Your task to perform on an android device: Open Android settings Image 0: 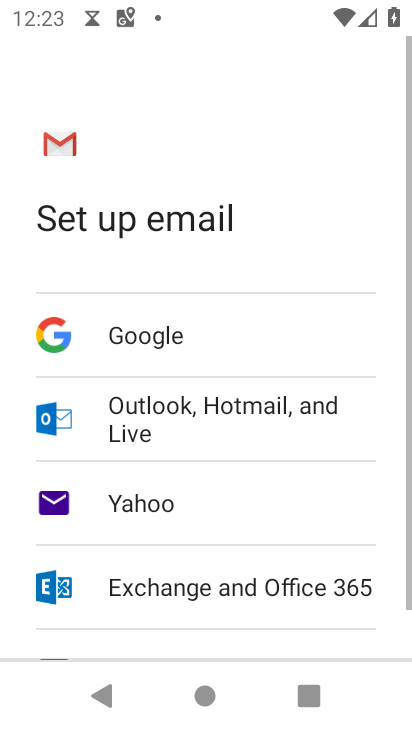
Step 0: press home button
Your task to perform on an android device: Open Android settings Image 1: 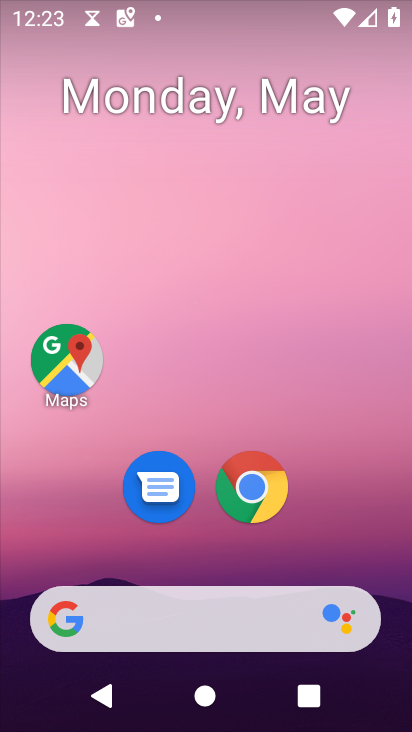
Step 1: drag from (222, 548) to (128, 3)
Your task to perform on an android device: Open Android settings Image 2: 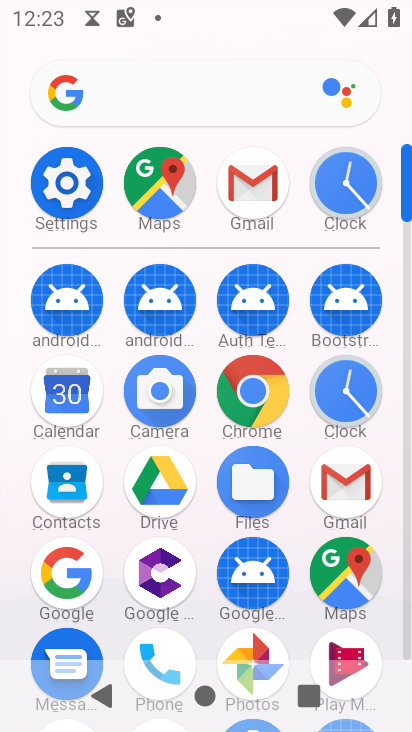
Step 2: click (68, 182)
Your task to perform on an android device: Open Android settings Image 3: 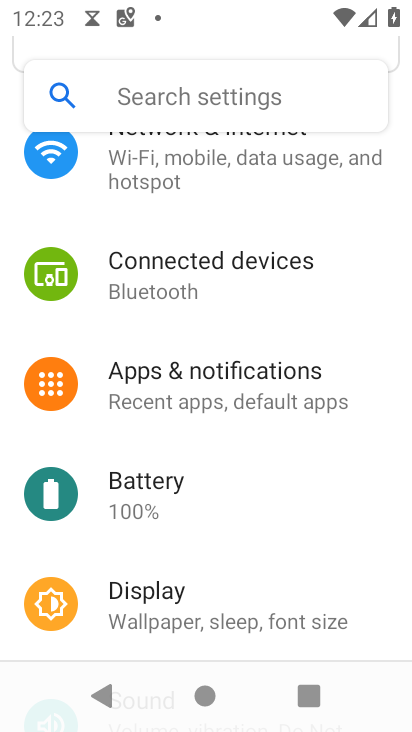
Step 3: drag from (207, 612) to (230, 61)
Your task to perform on an android device: Open Android settings Image 4: 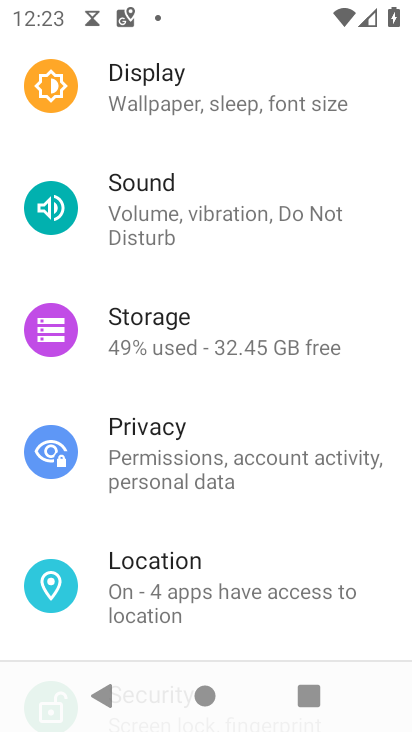
Step 4: drag from (237, 622) to (234, 100)
Your task to perform on an android device: Open Android settings Image 5: 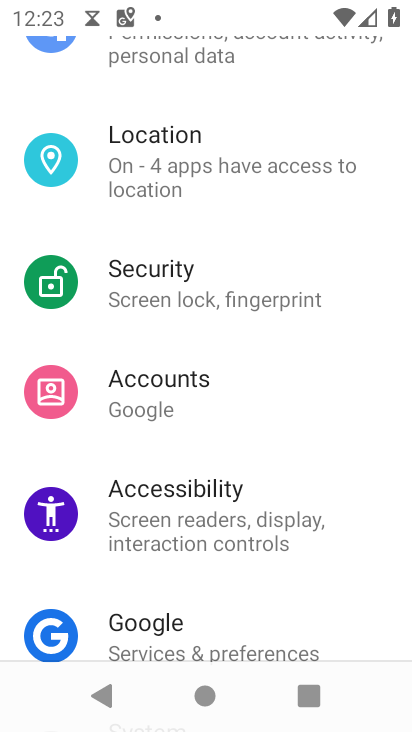
Step 5: drag from (214, 574) to (210, 96)
Your task to perform on an android device: Open Android settings Image 6: 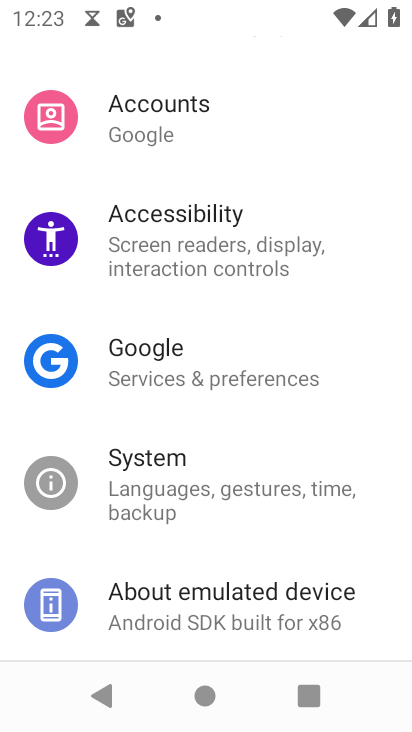
Step 6: click (170, 498)
Your task to perform on an android device: Open Android settings Image 7: 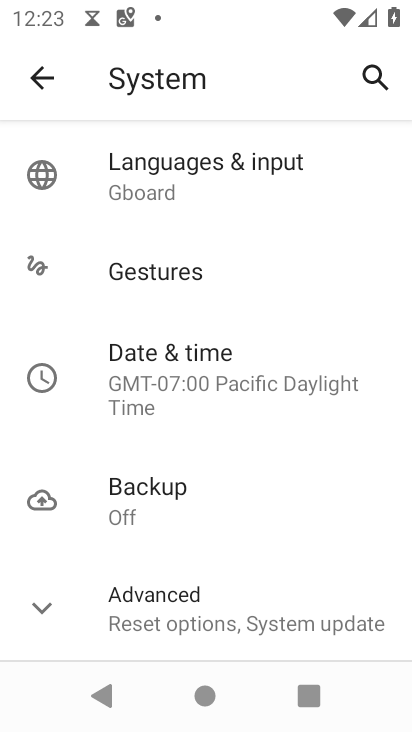
Step 7: task complete